Your task to perform on an android device: Open Yahoo.com Image 0: 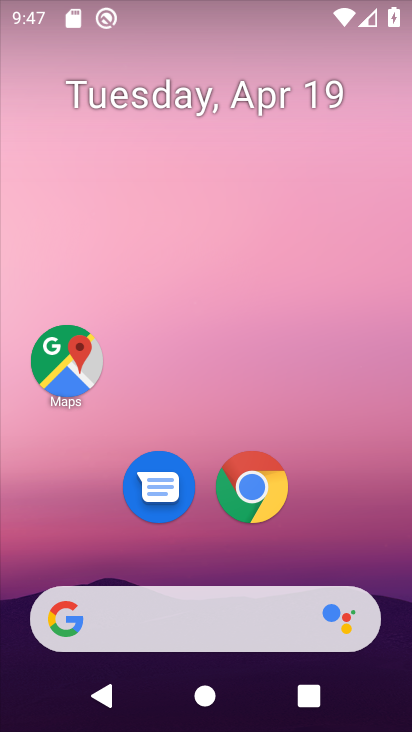
Step 0: drag from (353, 527) to (282, 6)
Your task to perform on an android device: Open Yahoo.com Image 1: 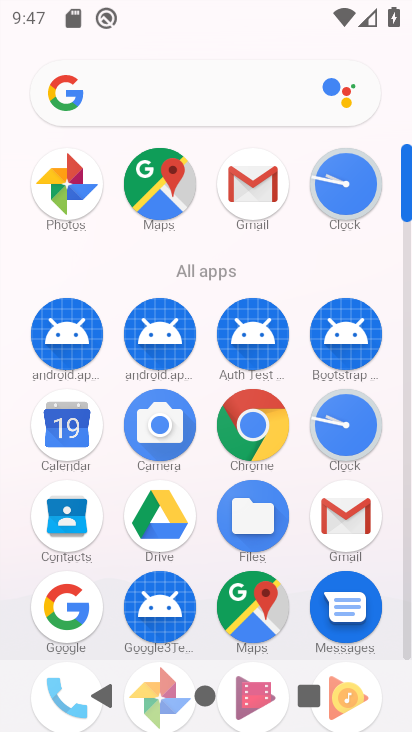
Step 1: click (253, 425)
Your task to perform on an android device: Open Yahoo.com Image 2: 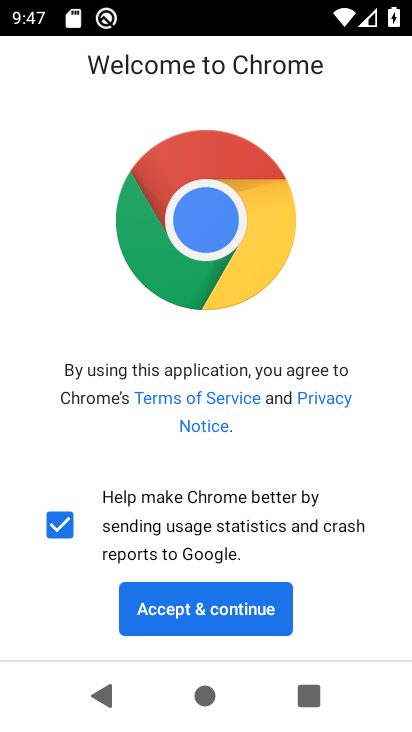
Step 2: click (231, 597)
Your task to perform on an android device: Open Yahoo.com Image 3: 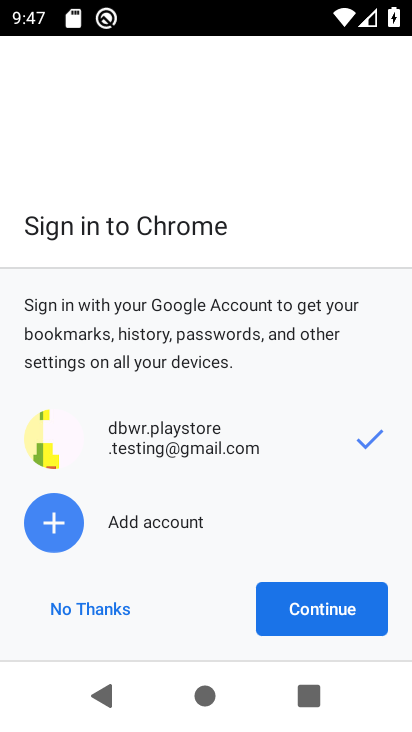
Step 3: click (321, 618)
Your task to perform on an android device: Open Yahoo.com Image 4: 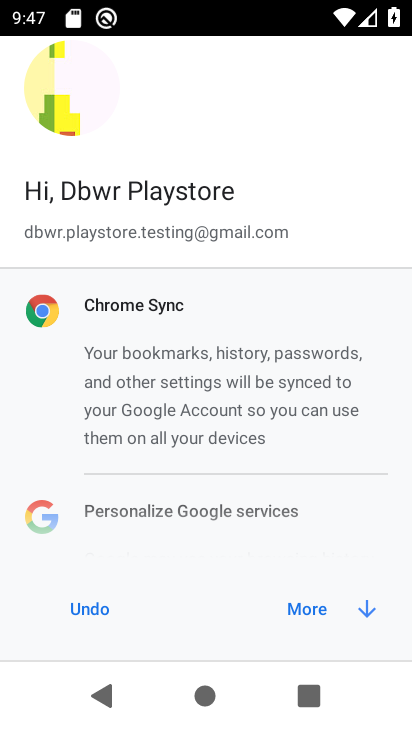
Step 4: click (292, 616)
Your task to perform on an android device: Open Yahoo.com Image 5: 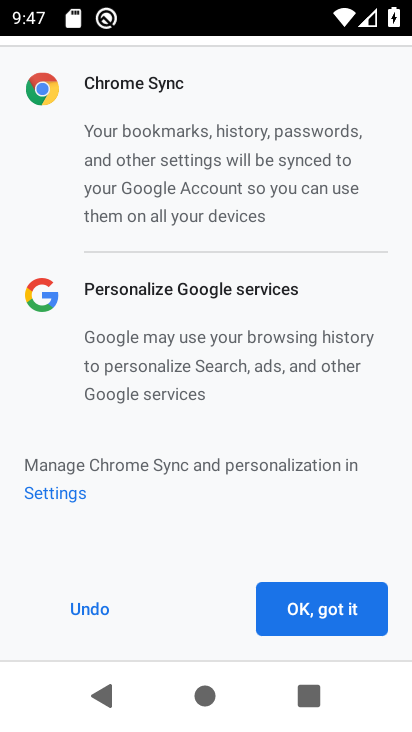
Step 5: click (292, 616)
Your task to perform on an android device: Open Yahoo.com Image 6: 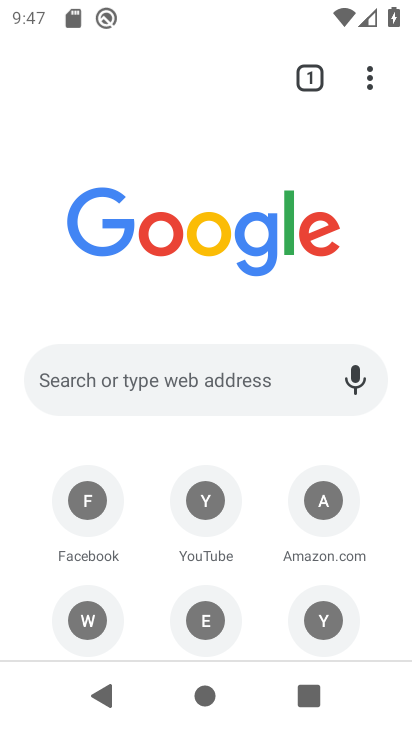
Step 6: click (205, 370)
Your task to perform on an android device: Open Yahoo.com Image 7: 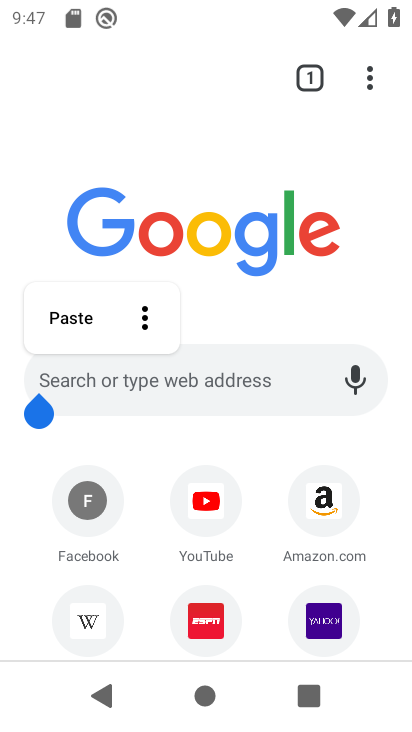
Step 7: click (285, 379)
Your task to perform on an android device: Open Yahoo.com Image 8: 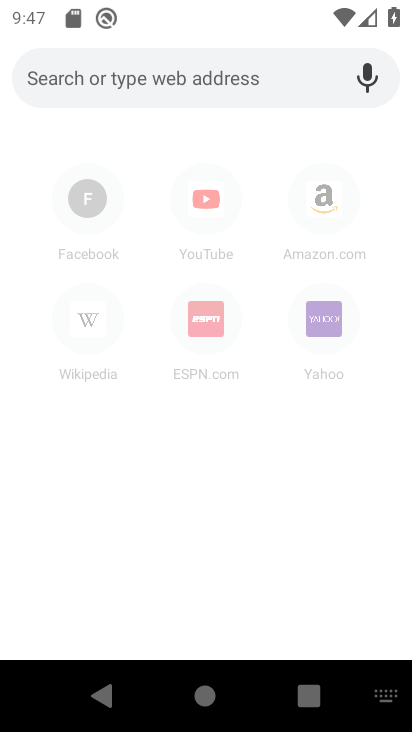
Step 8: click (326, 320)
Your task to perform on an android device: Open Yahoo.com Image 9: 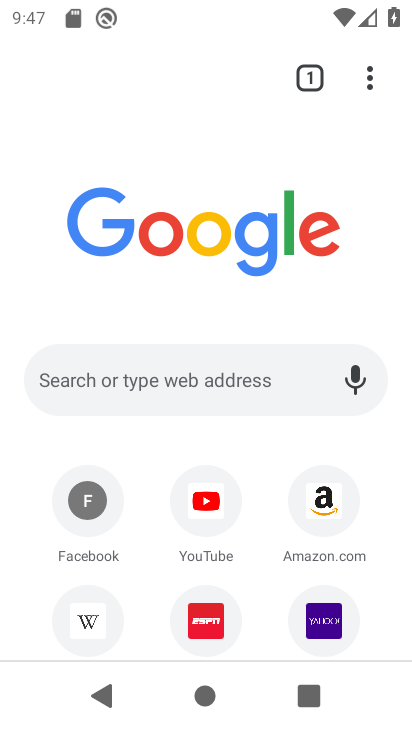
Step 9: click (323, 622)
Your task to perform on an android device: Open Yahoo.com Image 10: 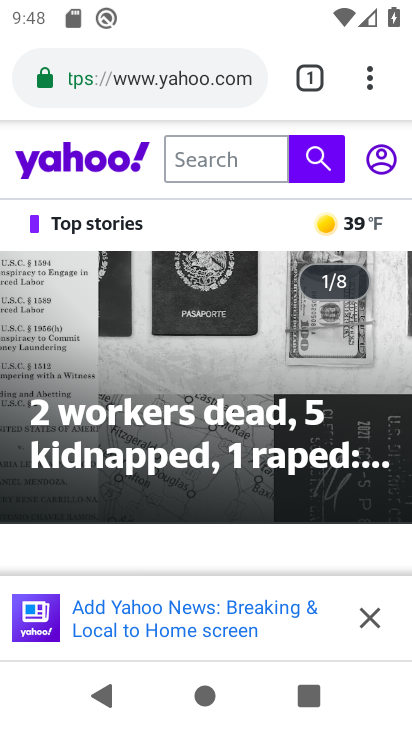
Step 10: drag from (186, 366) to (177, 247)
Your task to perform on an android device: Open Yahoo.com Image 11: 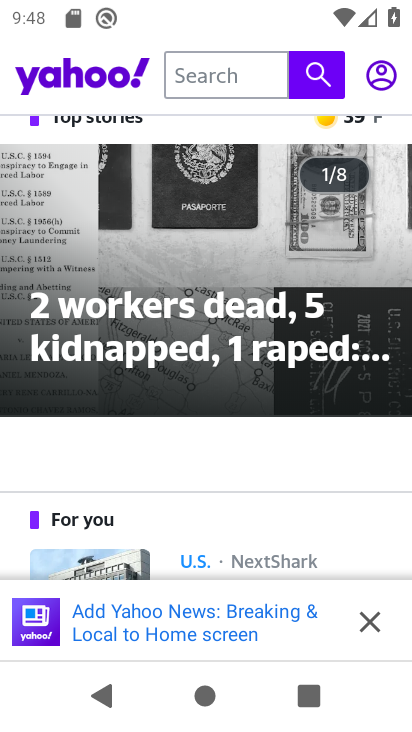
Step 11: click (175, 408)
Your task to perform on an android device: Open Yahoo.com Image 12: 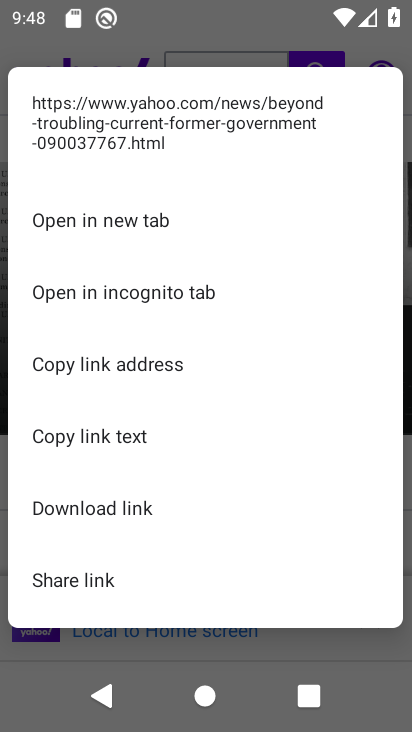
Step 12: click (120, 691)
Your task to perform on an android device: Open Yahoo.com Image 13: 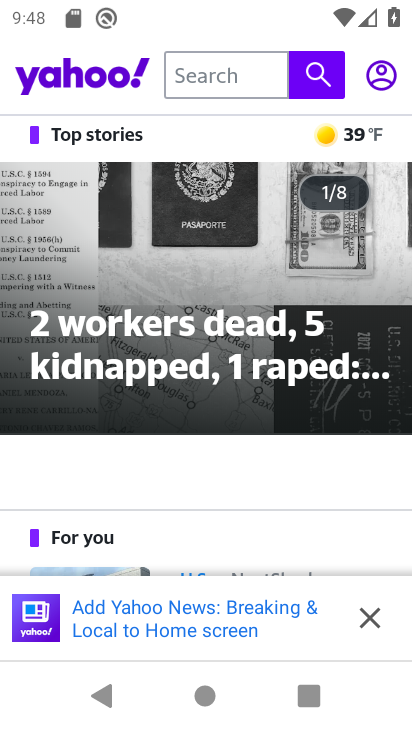
Step 13: task complete